Your task to perform on an android device: open a bookmark in the chrome app Image 0: 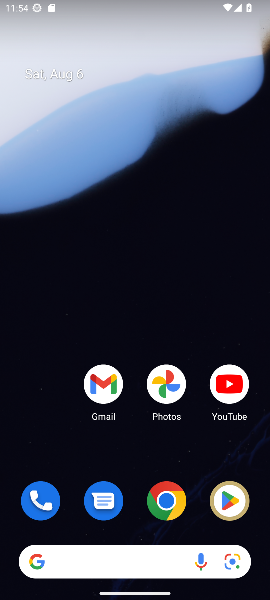
Step 0: click (165, 505)
Your task to perform on an android device: open a bookmark in the chrome app Image 1: 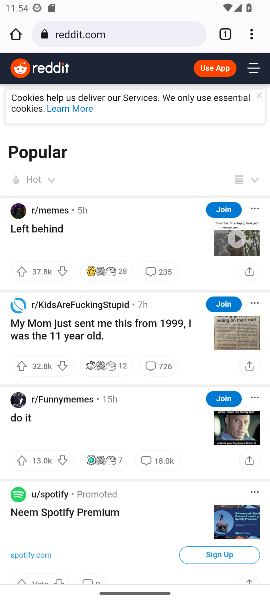
Step 1: click (250, 29)
Your task to perform on an android device: open a bookmark in the chrome app Image 2: 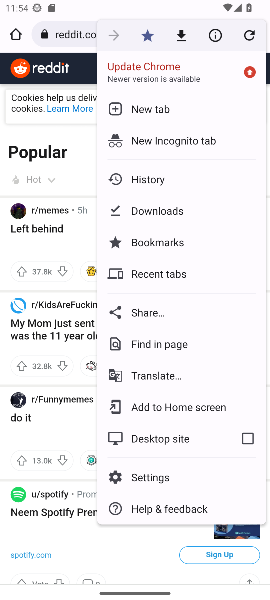
Step 2: click (160, 240)
Your task to perform on an android device: open a bookmark in the chrome app Image 3: 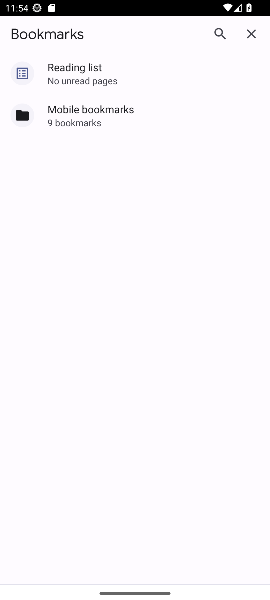
Step 3: click (66, 109)
Your task to perform on an android device: open a bookmark in the chrome app Image 4: 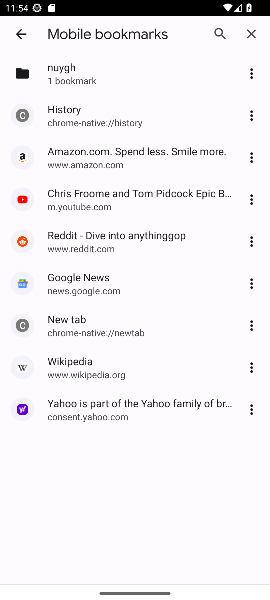
Step 4: click (81, 150)
Your task to perform on an android device: open a bookmark in the chrome app Image 5: 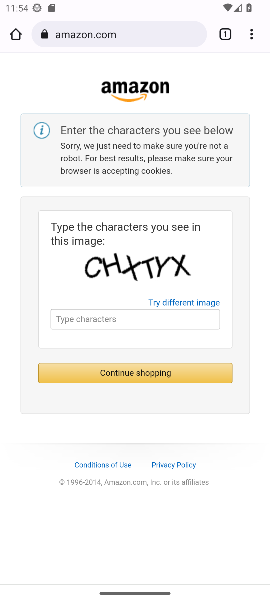
Step 5: task complete